Your task to perform on an android device: Go to eBay Image 0: 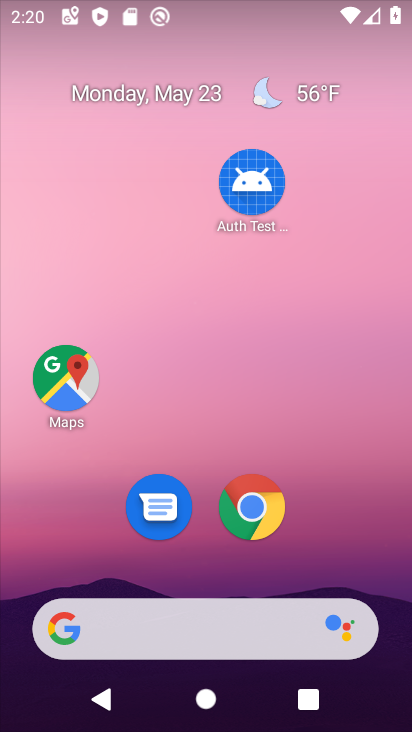
Step 0: drag from (247, 707) to (158, 174)
Your task to perform on an android device: Go to eBay Image 1: 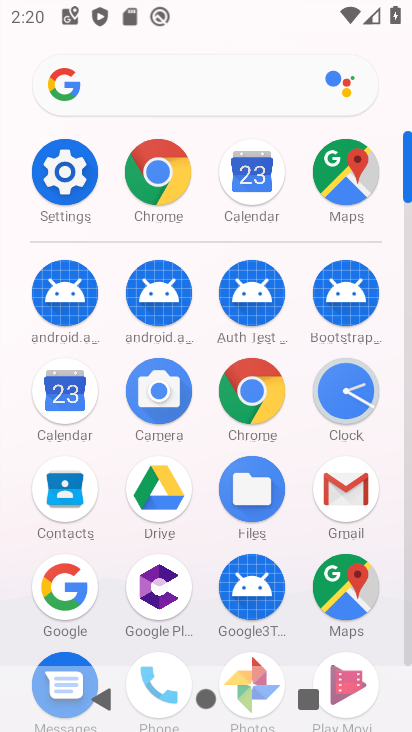
Step 1: click (159, 167)
Your task to perform on an android device: Go to eBay Image 2: 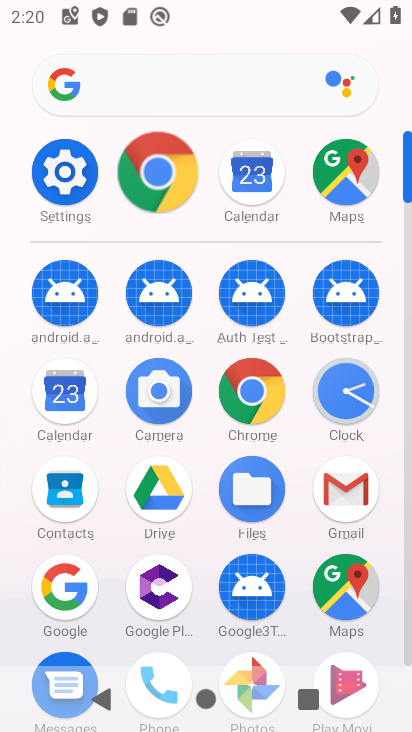
Step 2: click (159, 167)
Your task to perform on an android device: Go to eBay Image 3: 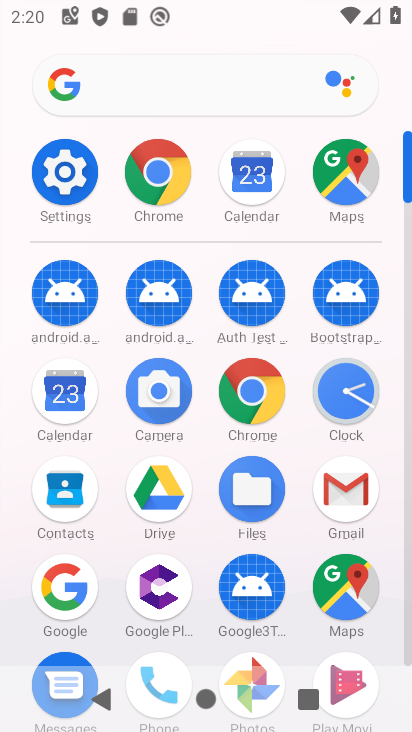
Step 3: click (160, 167)
Your task to perform on an android device: Go to eBay Image 4: 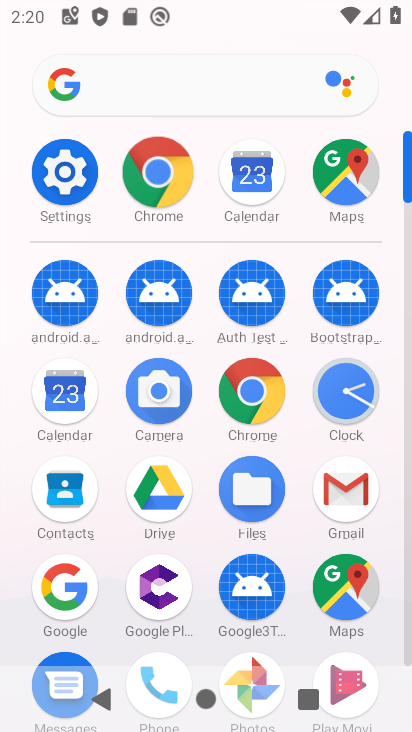
Step 4: click (159, 169)
Your task to perform on an android device: Go to eBay Image 5: 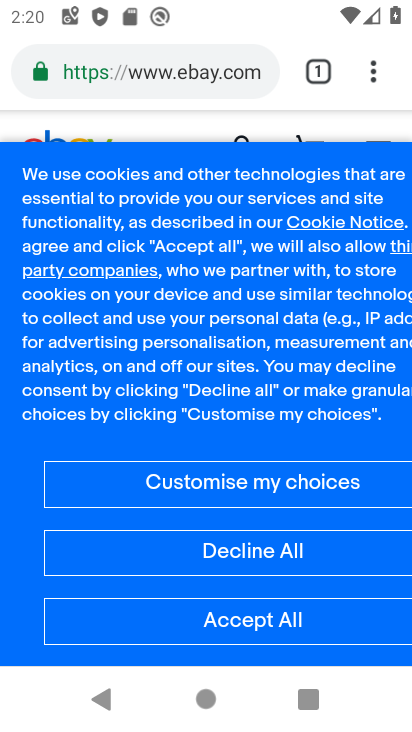
Step 5: task complete